Your task to perform on an android device: open a new tab in the chrome app Image 0: 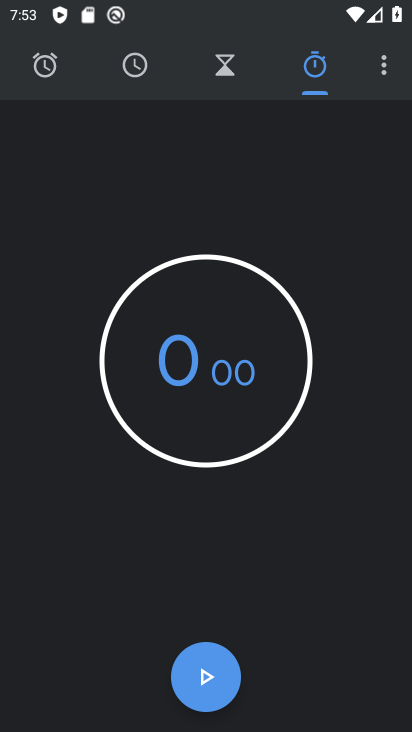
Step 0: press home button
Your task to perform on an android device: open a new tab in the chrome app Image 1: 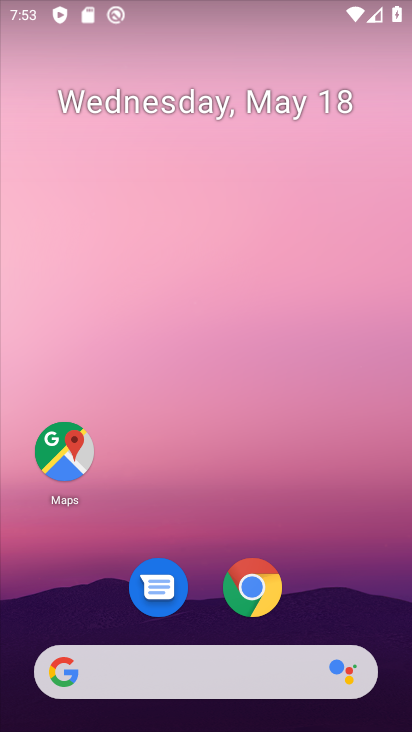
Step 1: click (259, 590)
Your task to perform on an android device: open a new tab in the chrome app Image 2: 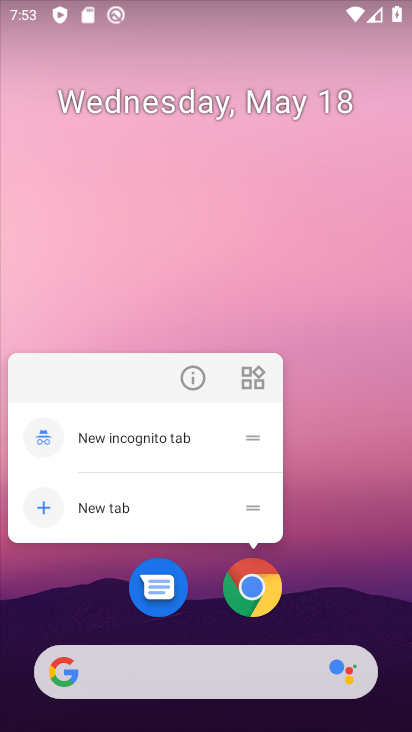
Step 2: click (259, 590)
Your task to perform on an android device: open a new tab in the chrome app Image 3: 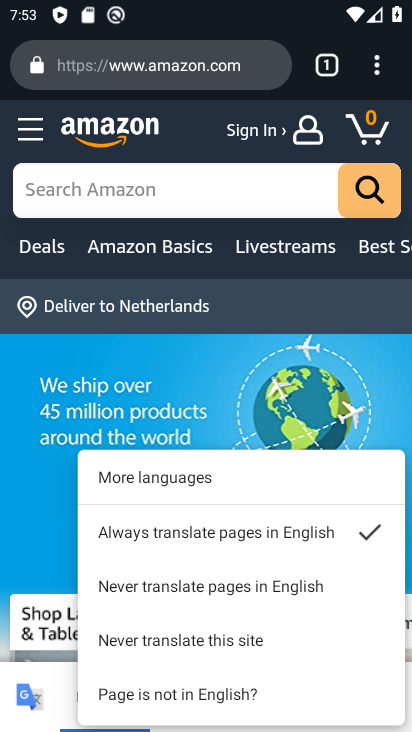
Step 3: drag from (248, 73) to (255, 322)
Your task to perform on an android device: open a new tab in the chrome app Image 4: 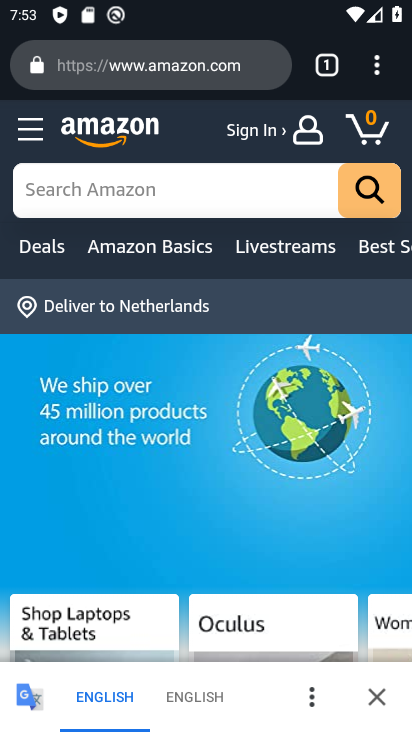
Step 4: drag from (335, 58) to (257, 371)
Your task to perform on an android device: open a new tab in the chrome app Image 5: 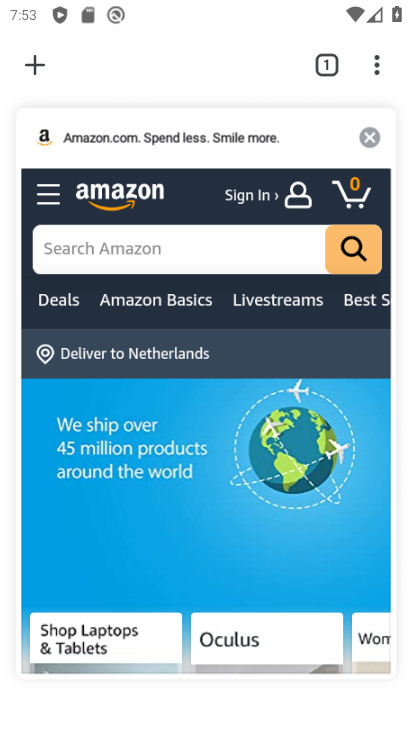
Step 5: click (32, 75)
Your task to perform on an android device: open a new tab in the chrome app Image 6: 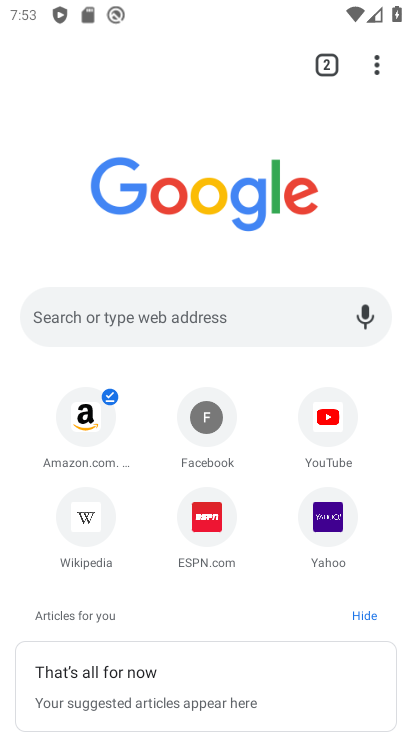
Step 6: task complete